Your task to perform on an android device: Show me some nice wallpapers for my desktop Image 0: 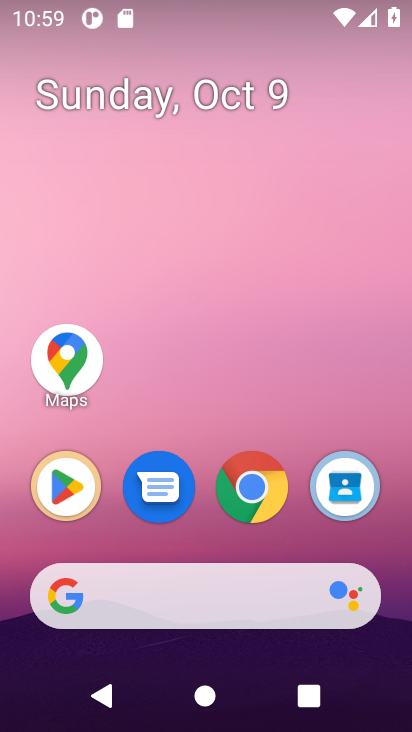
Step 0: click (264, 487)
Your task to perform on an android device: Show me some nice wallpapers for my desktop Image 1: 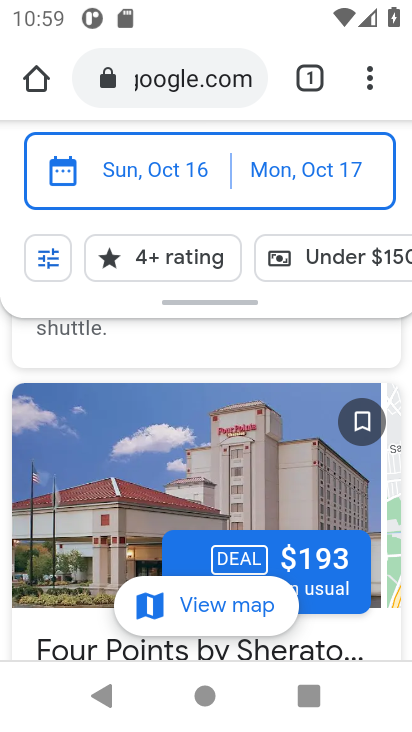
Step 1: click (208, 84)
Your task to perform on an android device: Show me some nice wallpapers for my desktop Image 2: 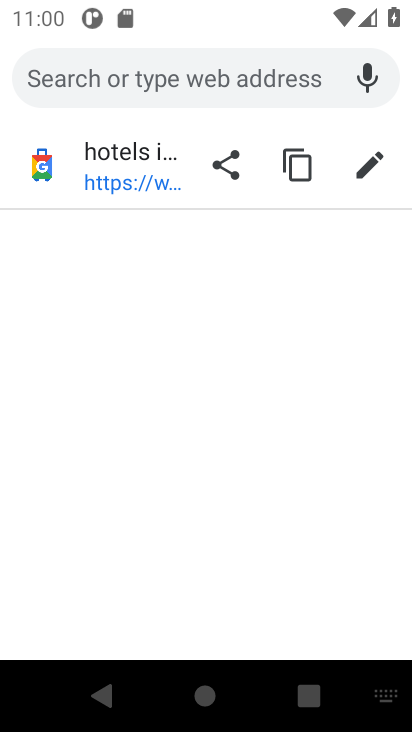
Step 2: type "nice wallpapers for desktop"
Your task to perform on an android device: Show me some nice wallpapers for my desktop Image 3: 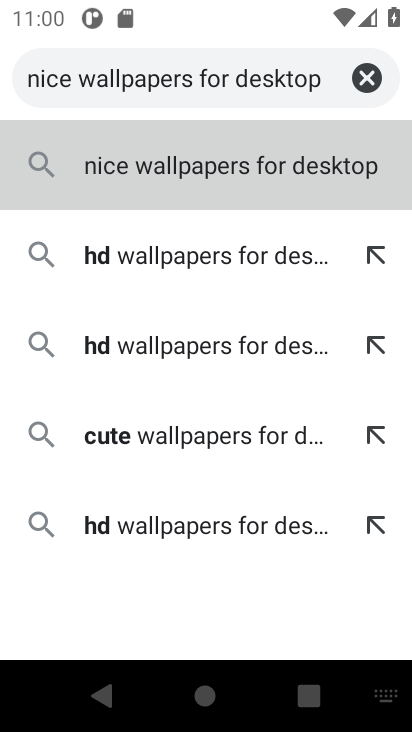
Step 3: type ""
Your task to perform on an android device: Show me some nice wallpapers for my desktop Image 4: 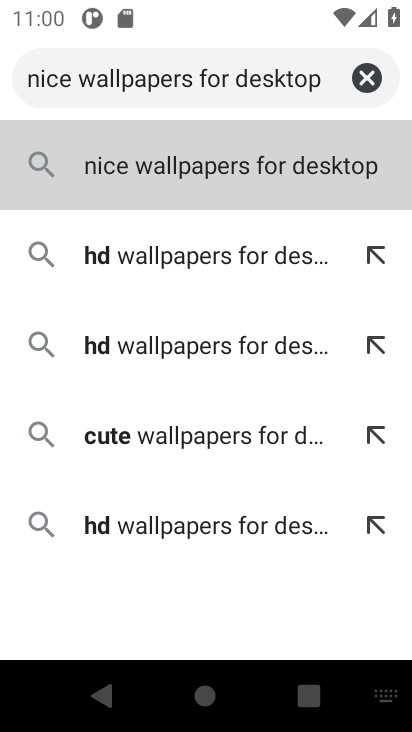
Step 4: press enter
Your task to perform on an android device: Show me some nice wallpapers for my desktop Image 5: 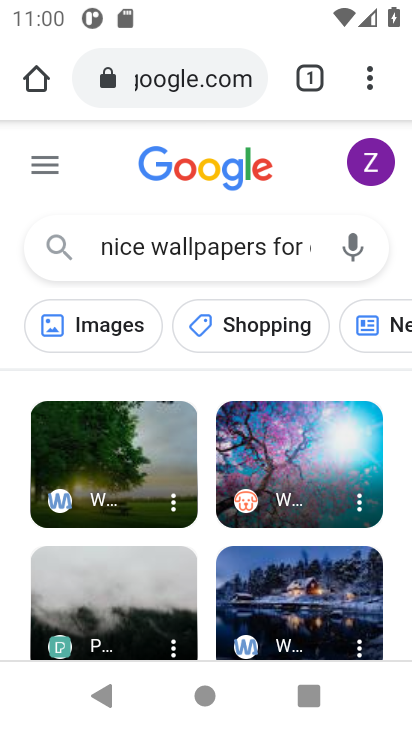
Step 5: click (107, 336)
Your task to perform on an android device: Show me some nice wallpapers for my desktop Image 6: 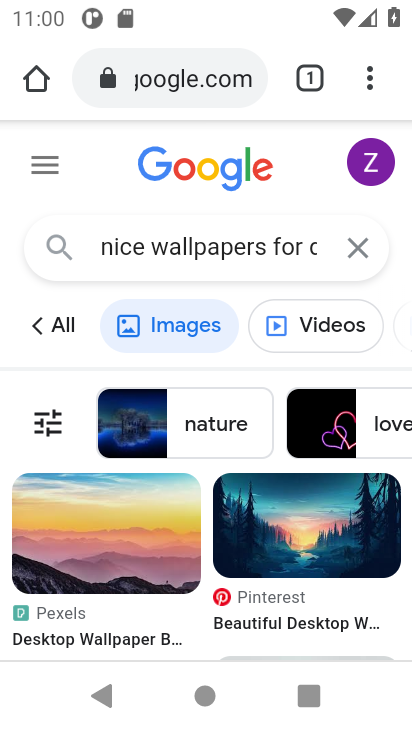
Step 6: task complete